Your task to perform on an android device: change the clock display to digital Image 0: 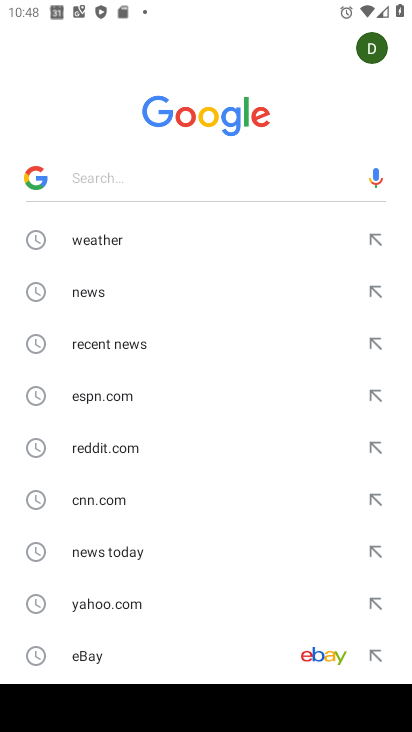
Step 0: press home button
Your task to perform on an android device: change the clock display to digital Image 1: 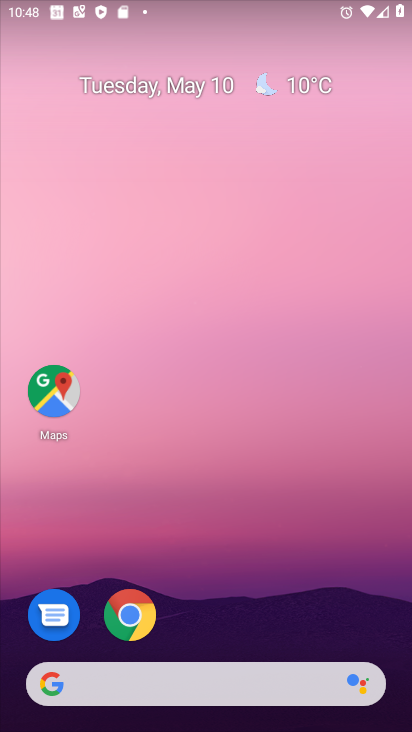
Step 1: drag from (239, 631) to (257, 4)
Your task to perform on an android device: change the clock display to digital Image 2: 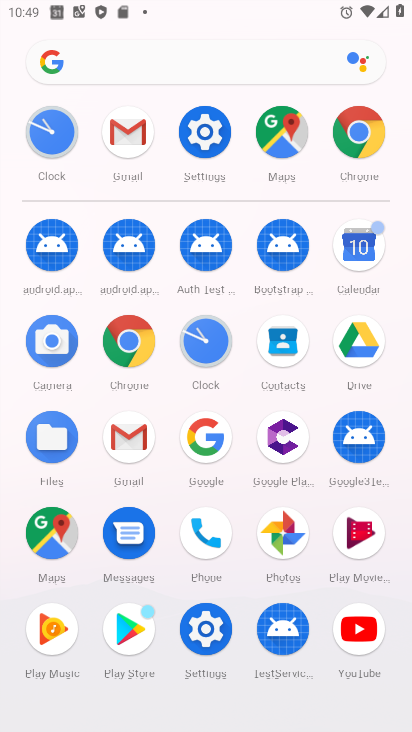
Step 2: click (207, 340)
Your task to perform on an android device: change the clock display to digital Image 3: 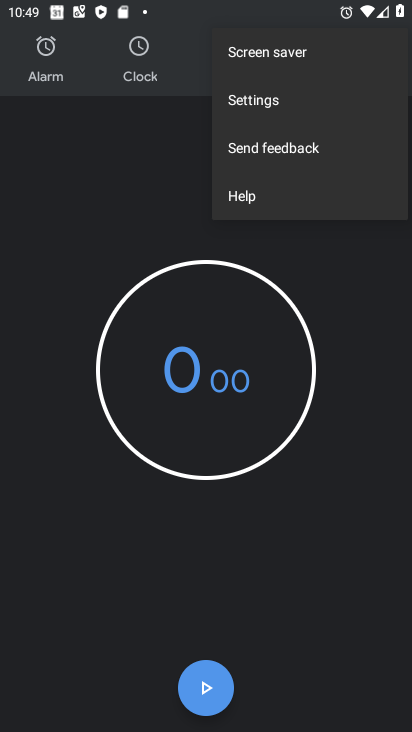
Step 3: click (288, 99)
Your task to perform on an android device: change the clock display to digital Image 4: 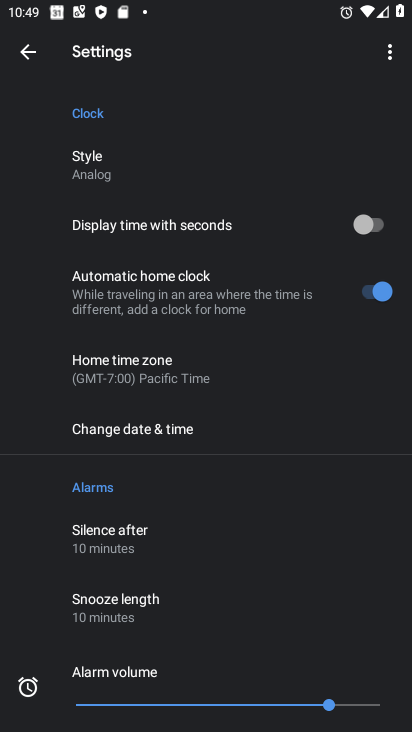
Step 4: click (126, 165)
Your task to perform on an android device: change the clock display to digital Image 5: 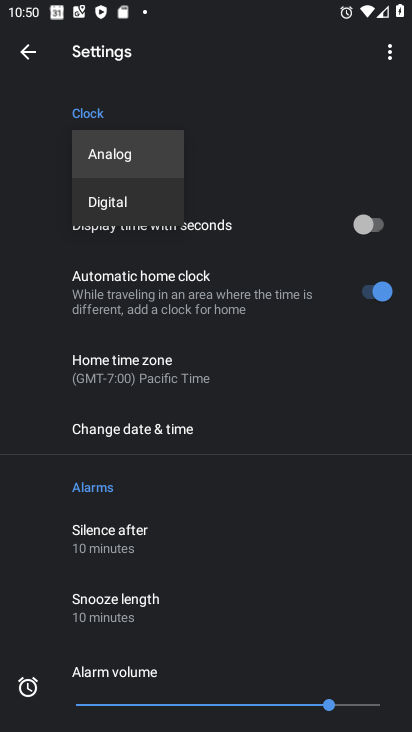
Step 5: click (148, 199)
Your task to perform on an android device: change the clock display to digital Image 6: 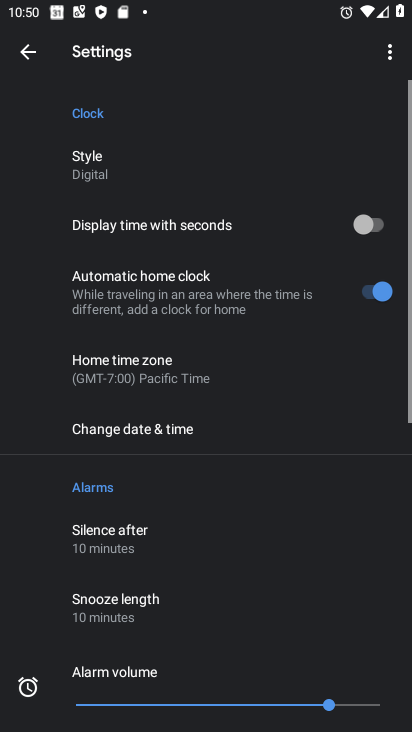
Step 6: task complete